Your task to perform on an android device: Open Maps and search for coffee Image 0: 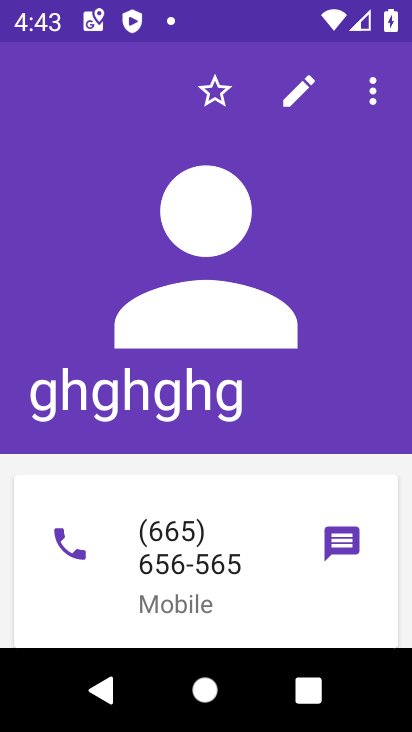
Step 0: press home button
Your task to perform on an android device: Open Maps and search for coffee Image 1: 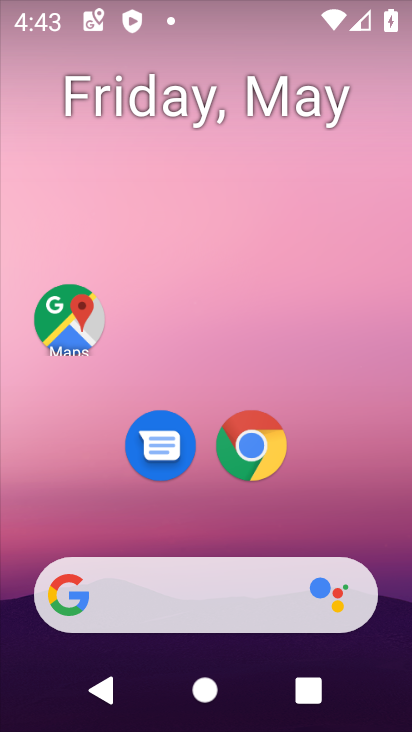
Step 1: click (61, 313)
Your task to perform on an android device: Open Maps and search for coffee Image 2: 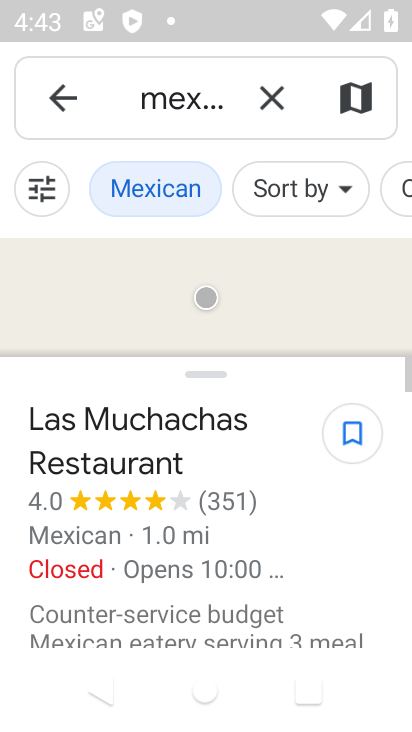
Step 2: click (226, 97)
Your task to perform on an android device: Open Maps and search for coffee Image 3: 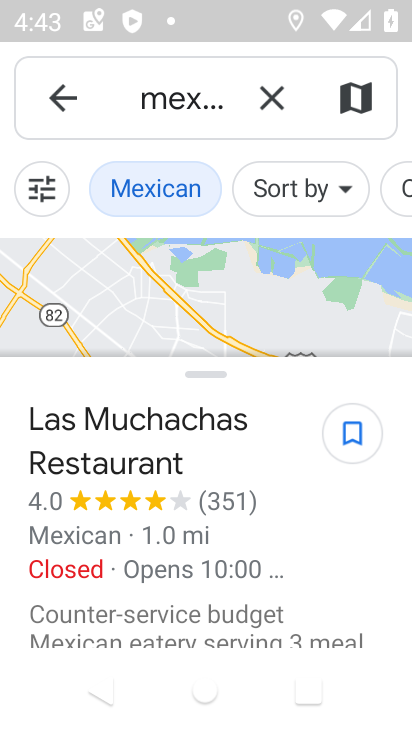
Step 3: click (204, 109)
Your task to perform on an android device: Open Maps and search for coffee Image 4: 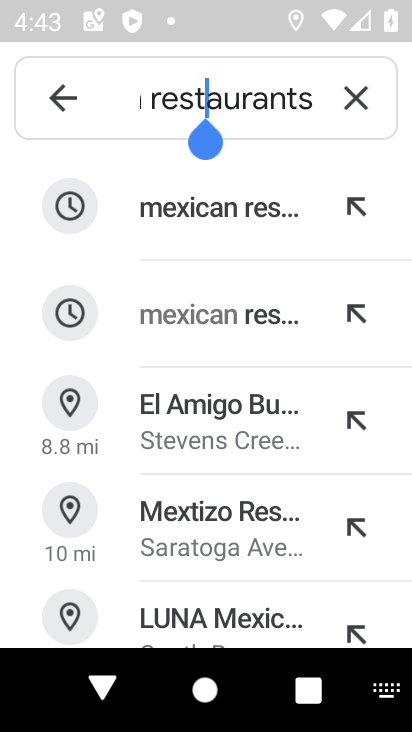
Step 4: click (353, 94)
Your task to perform on an android device: Open Maps and search for coffee Image 5: 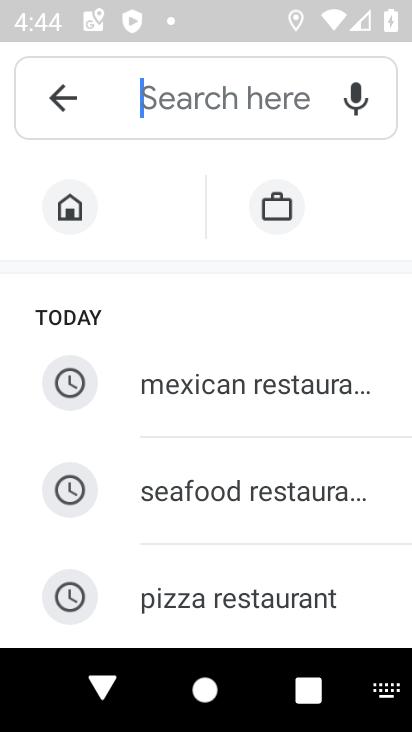
Step 5: type " coffee"
Your task to perform on an android device: Open Maps and search for coffee Image 6: 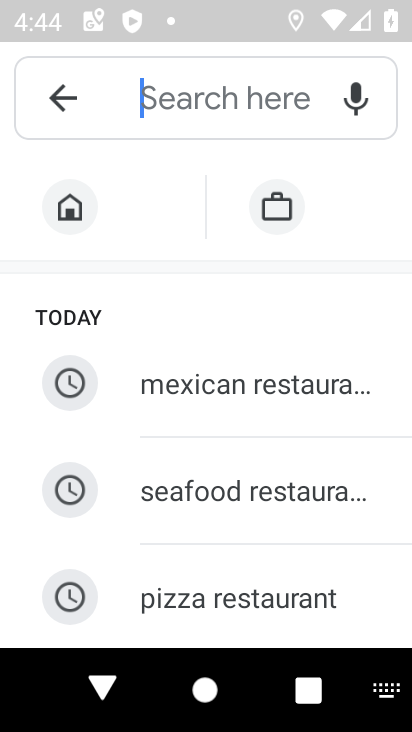
Step 6: click (259, 95)
Your task to perform on an android device: Open Maps and search for coffee Image 7: 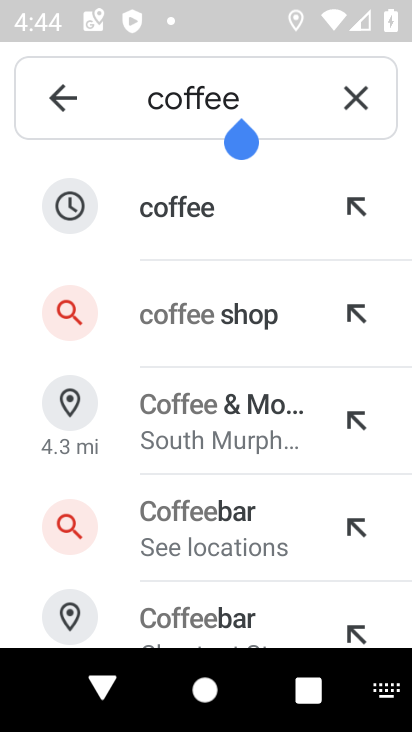
Step 7: click (168, 203)
Your task to perform on an android device: Open Maps and search for coffee Image 8: 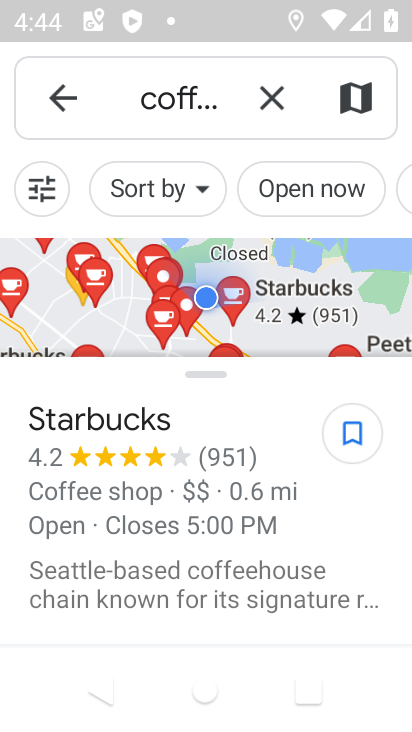
Step 8: task complete